Your task to perform on an android device: Show the shopping cart on ebay. Add "usb-b" to the cart on ebay, then select checkout. Image 0: 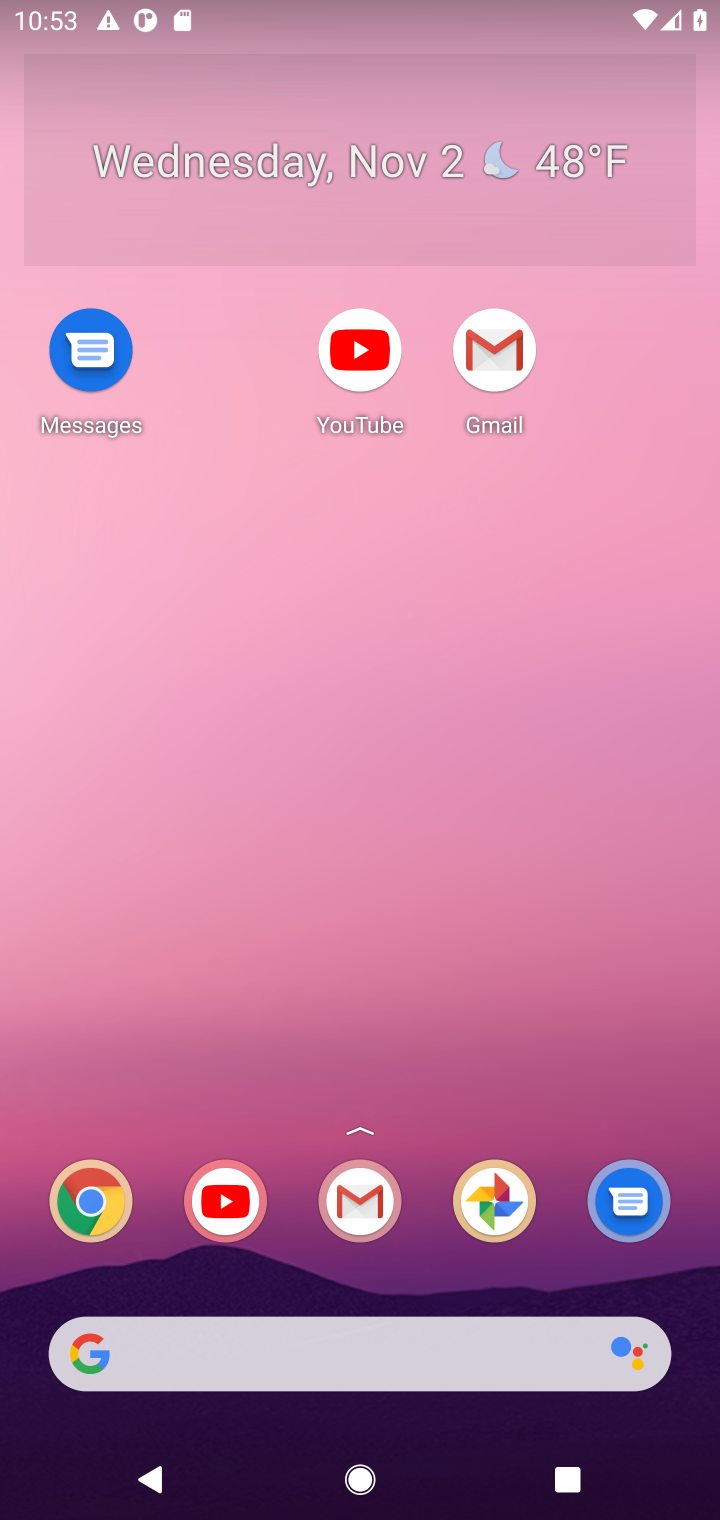
Step 0: drag from (429, 1294) to (414, 475)
Your task to perform on an android device: Show the shopping cart on ebay. Add "usb-b" to the cart on ebay, then select checkout. Image 1: 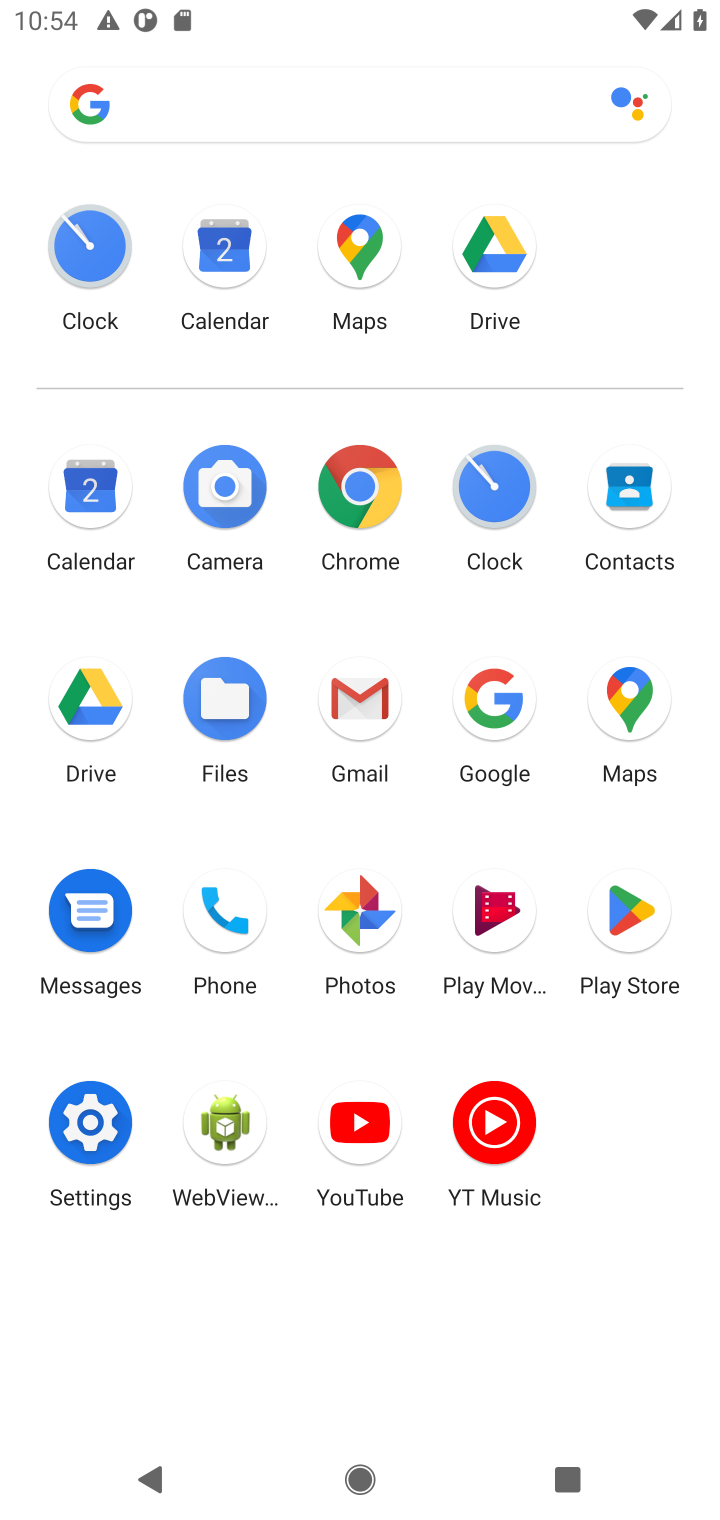
Step 1: click (361, 477)
Your task to perform on an android device: Show the shopping cart on ebay. Add "usb-b" to the cart on ebay, then select checkout. Image 2: 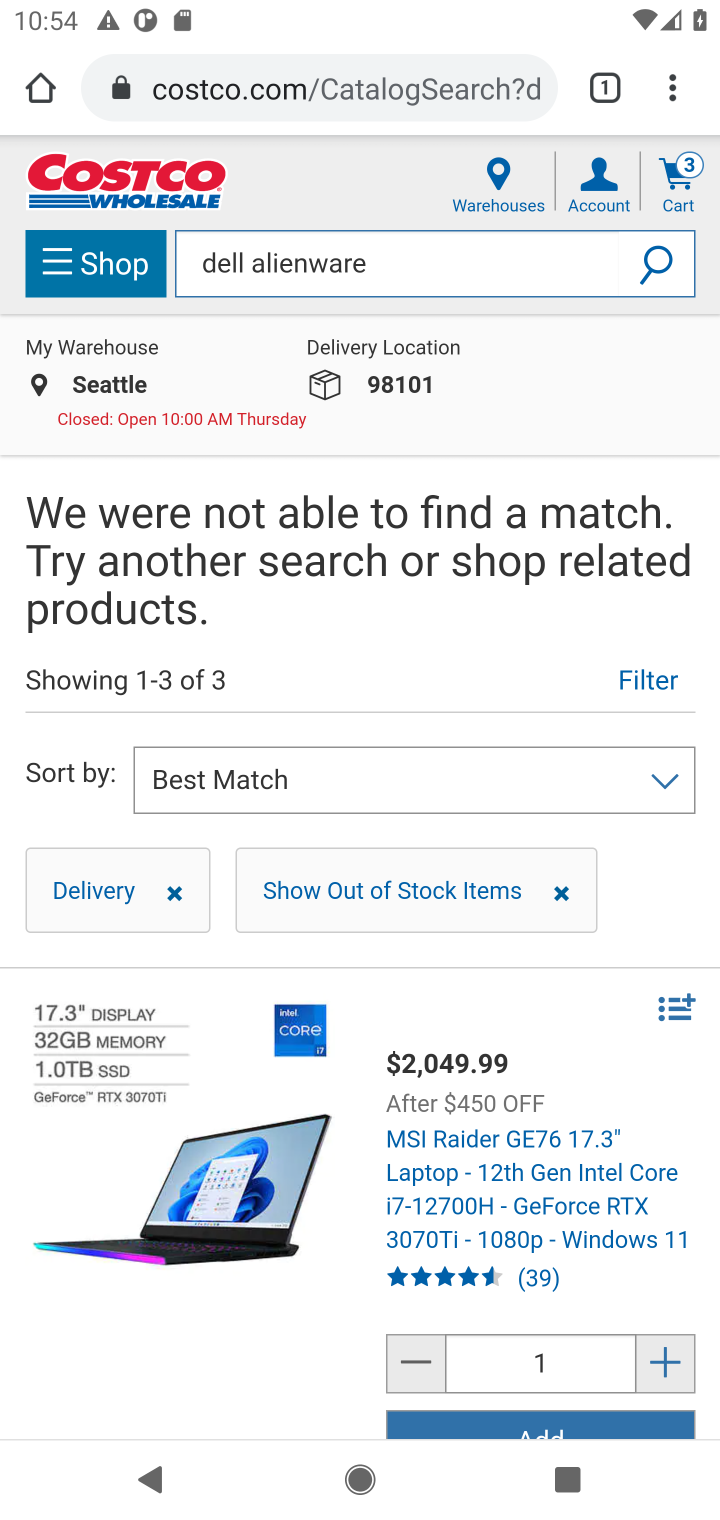
Step 2: click (262, 102)
Your task to perform on an android device: Show the shopping cart on ebay. Add "usb-b" to the cart on ebay, then select checkout. Image 3: 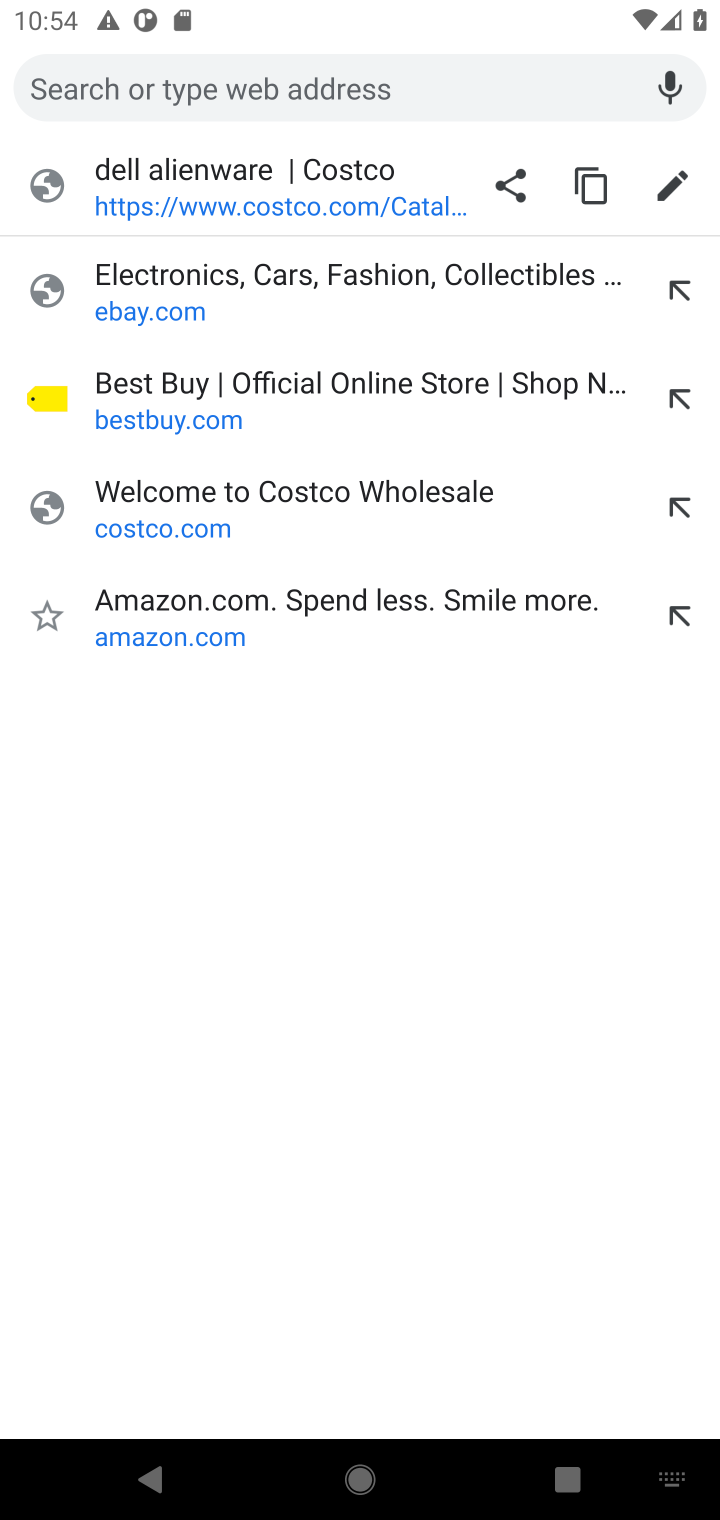
Step 3: type "ebay.com"
Your task to perform on an android device: Show the shopping cart on ebay. Add "usb-b" to the cart on ebay, then select checkout. Image 4: 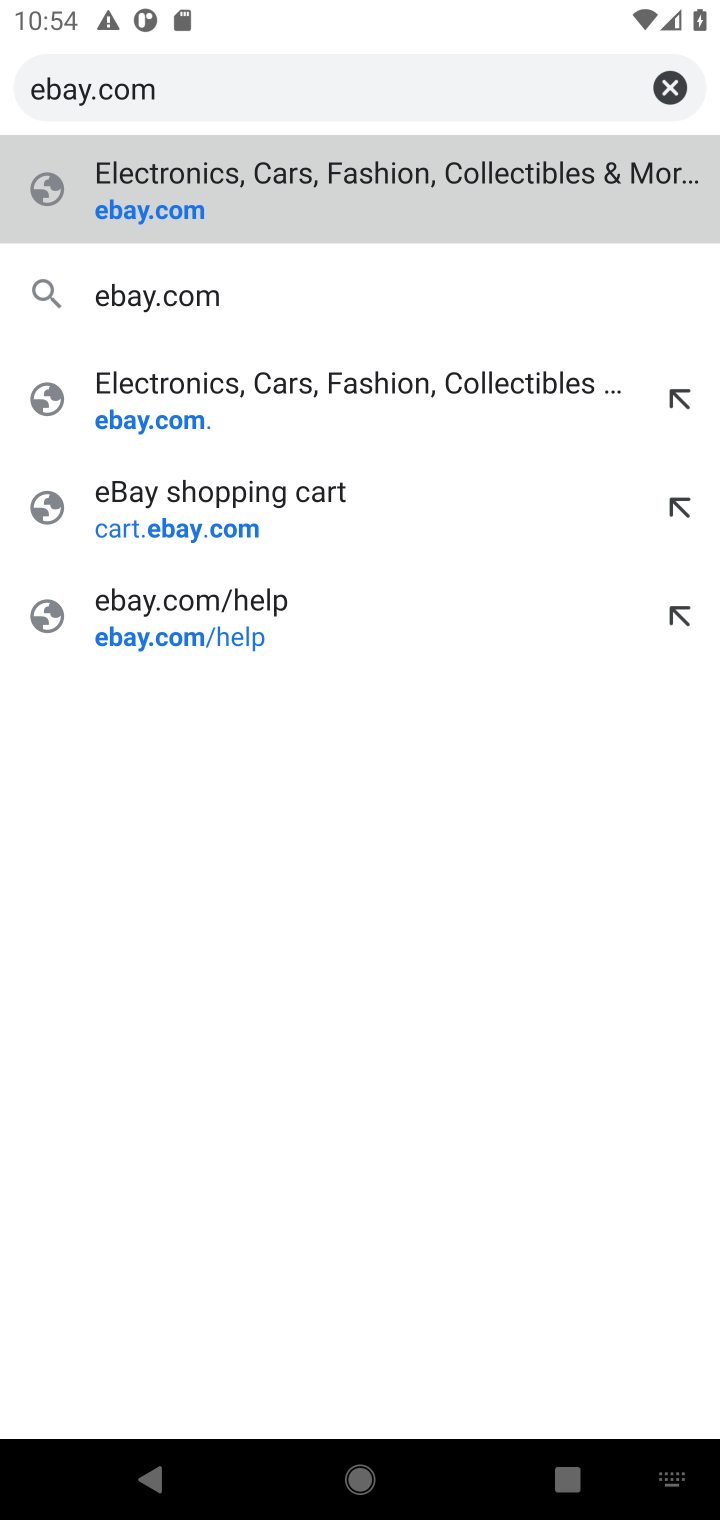
Step 4: press enter
Your task to perform on an android device: Show the shopping cart on ebay. Add "usb-b" to the cart on ebay, then select checkout. Image 5: 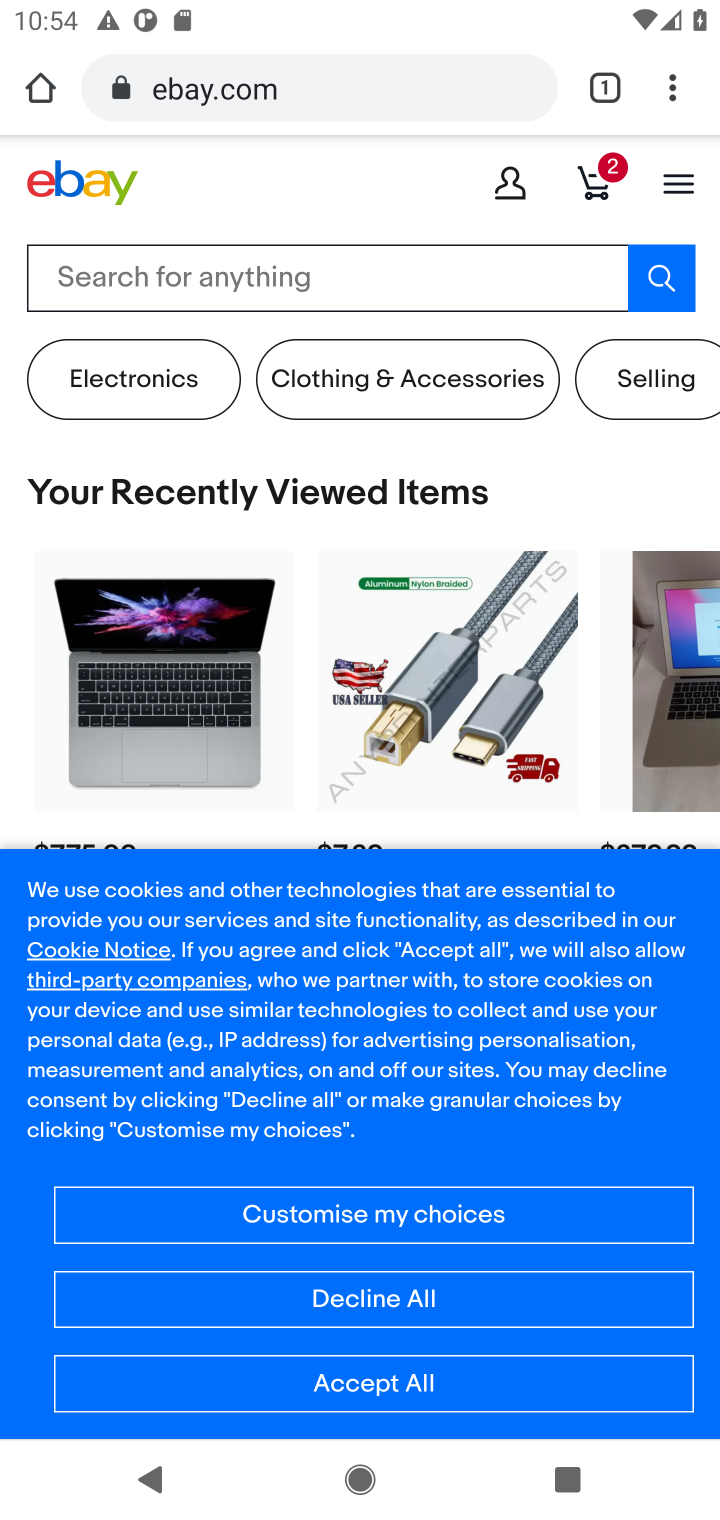
Step 5: click (601, 187)
Your task to perform on an android device: Show the shopping cart on ebay. Add "usb-b" to the cart on ebay, then select checkout. Image 6: 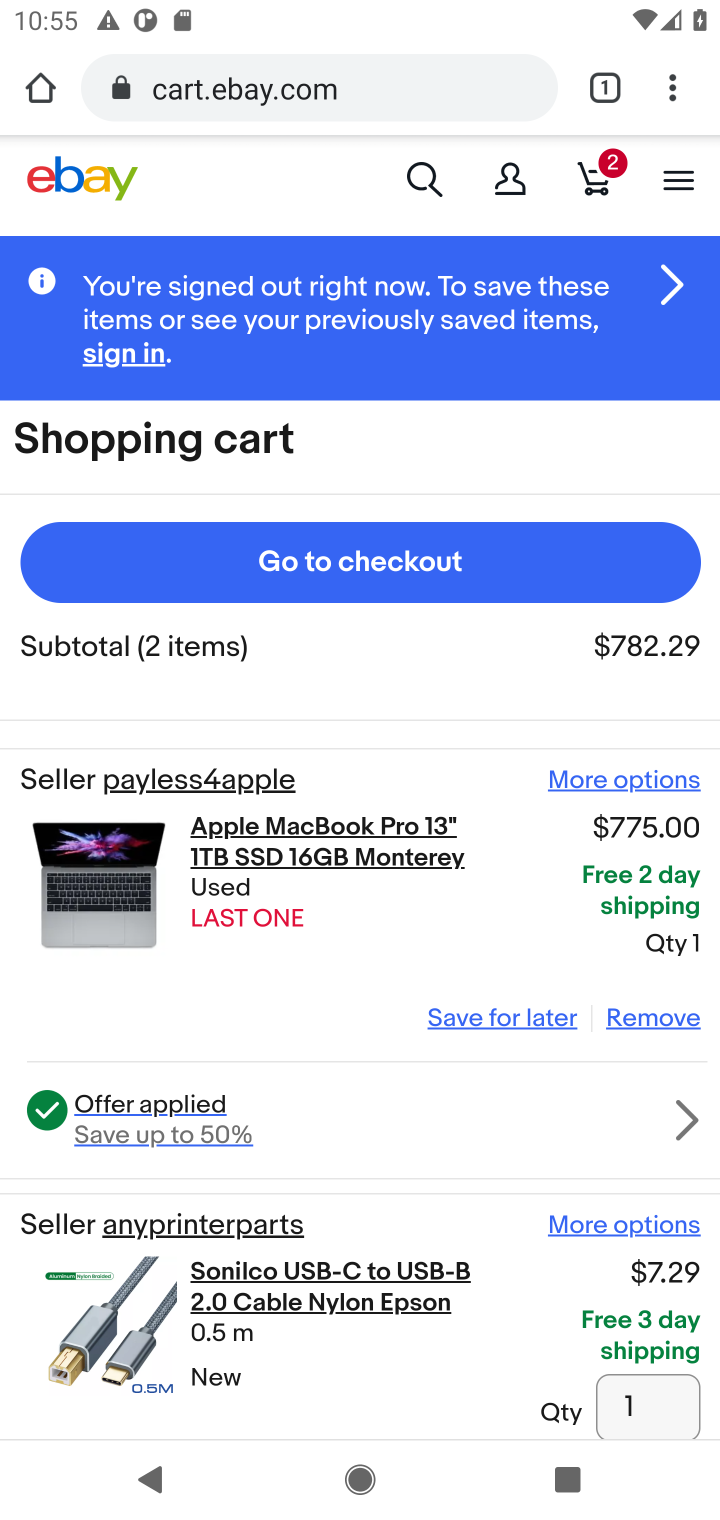
Step 6: click (416, 181)
Your task to perform on an android device: Show the shopping cart on ebay. Add "usb-b" to the cart on ebay, then select checkout. Image 7: 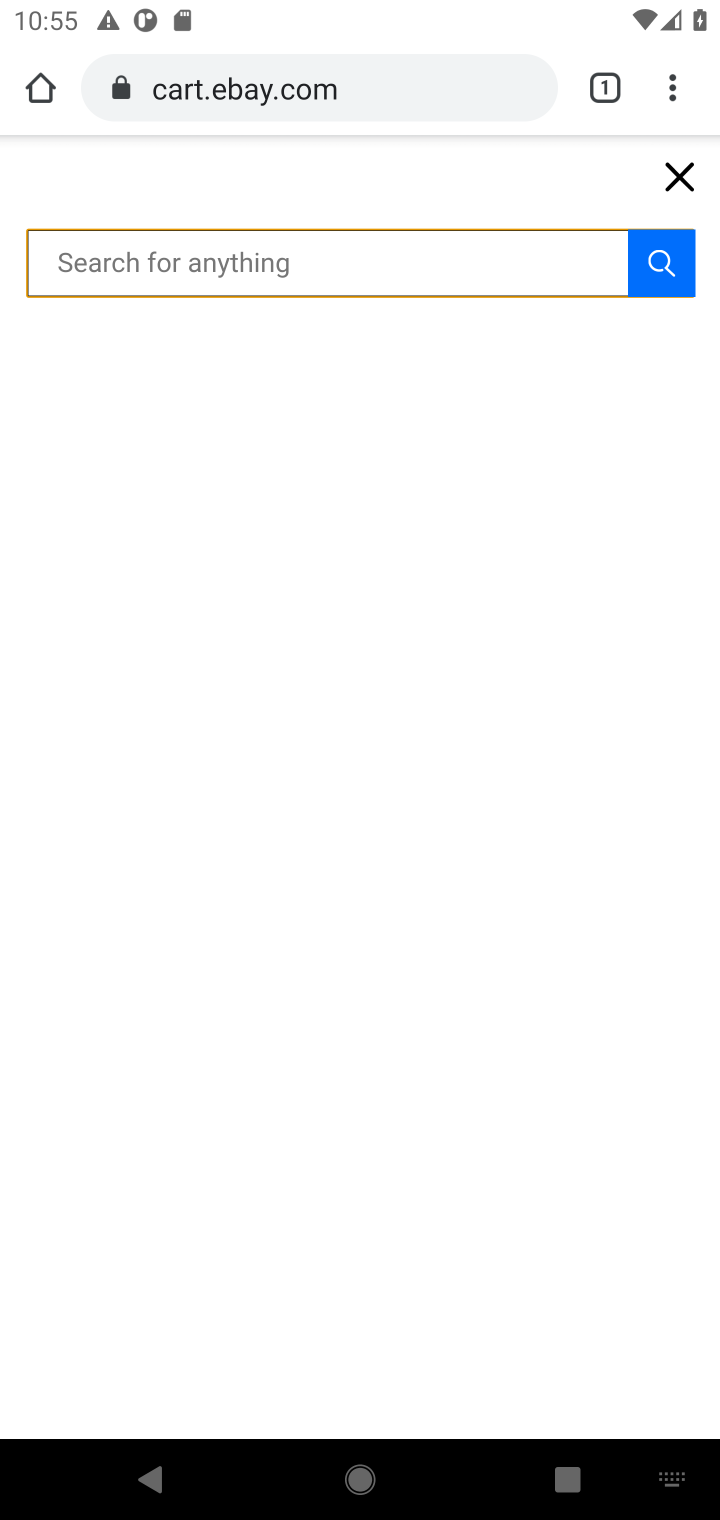
Step 7: type "usb-b"
Your task to perform on an android device: Show the shopping cart on ebay. Add "usb-b" to the cart on ebay, then select checkout. Image 8: 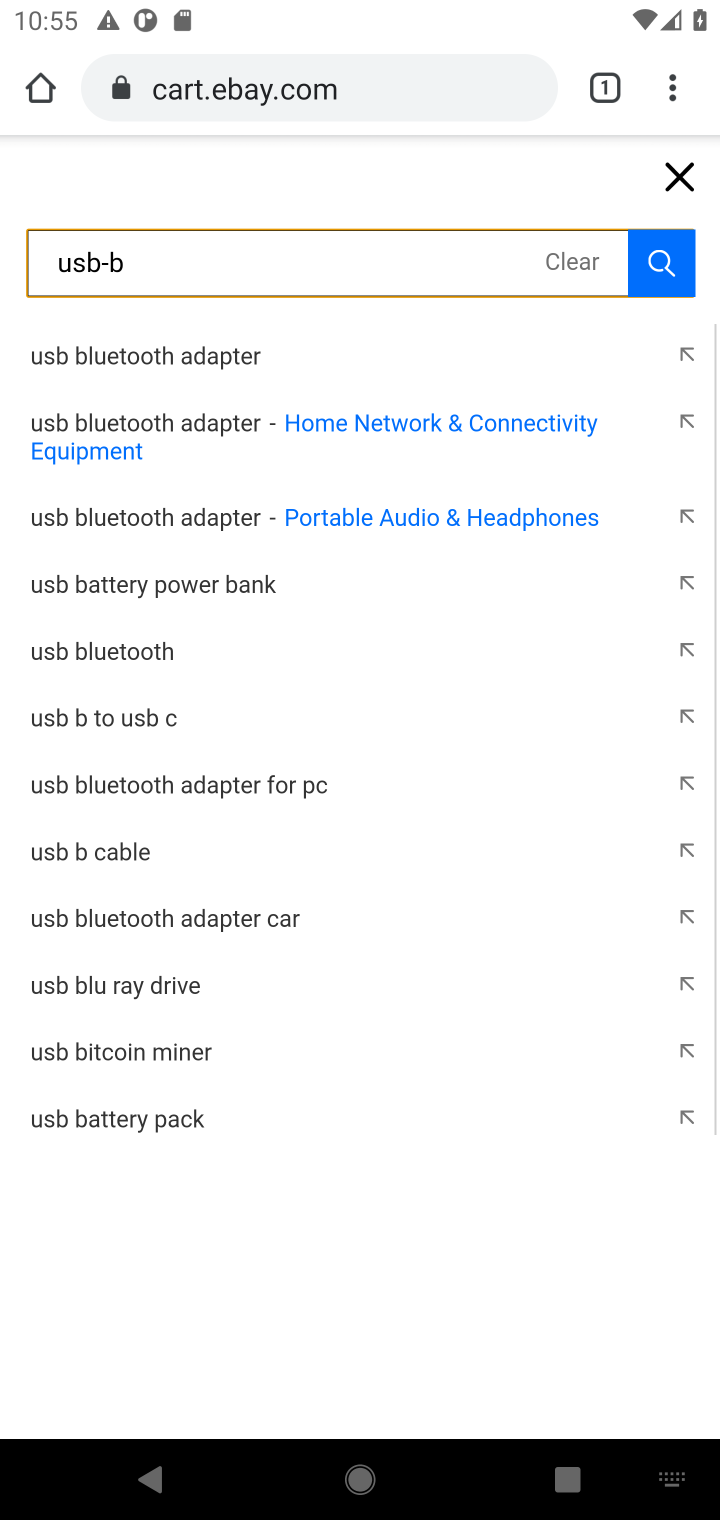
Step 8: press enter
Your task to perform on an android device: Show the shopping cart on ebay. Add "usb-b" to the cart on ebay, then select checkout. Image 9: 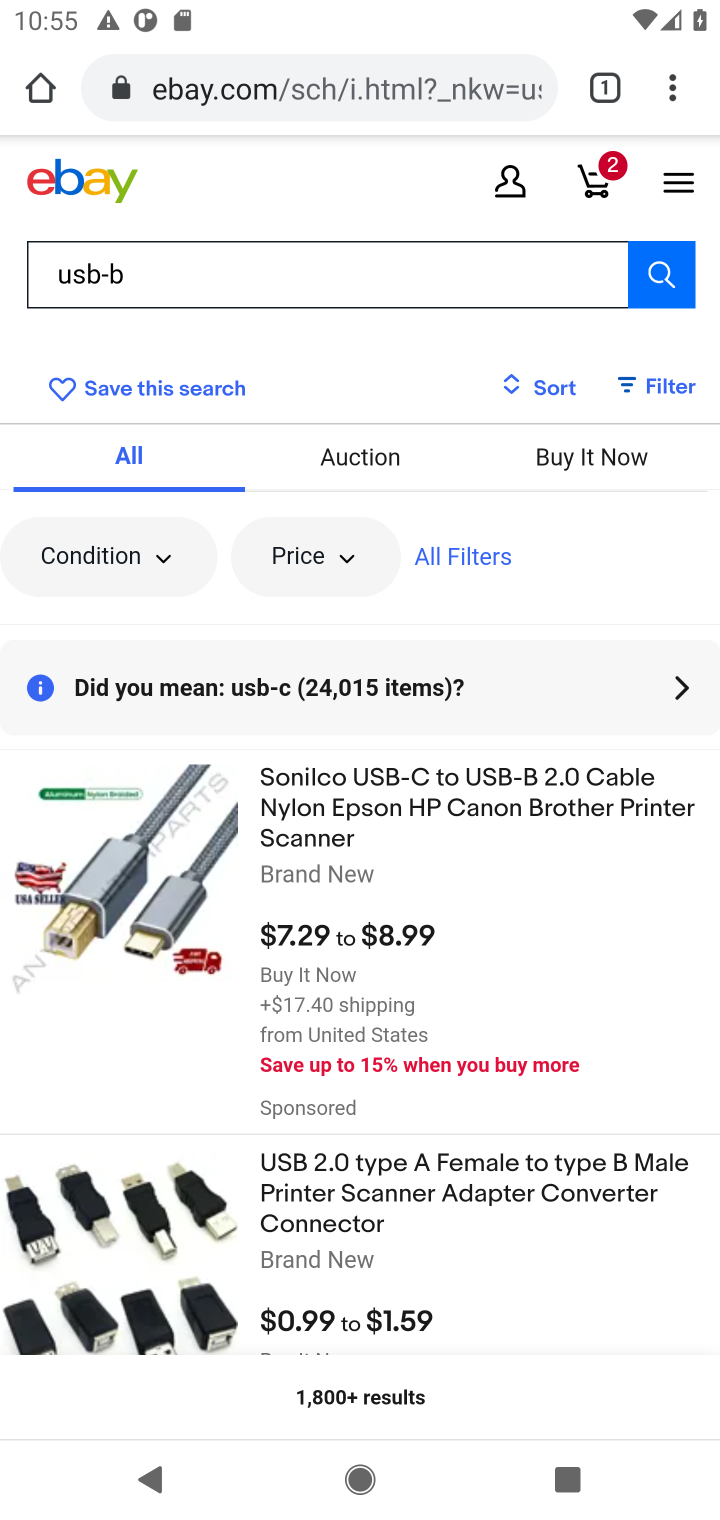
Step 9: drag from (543, 1040) to (508, 563)
Your task to perform on an android device: Show the shopping cart on ebay. Add "usb-b" to the cart on ebay, then select checkout. Image 10: 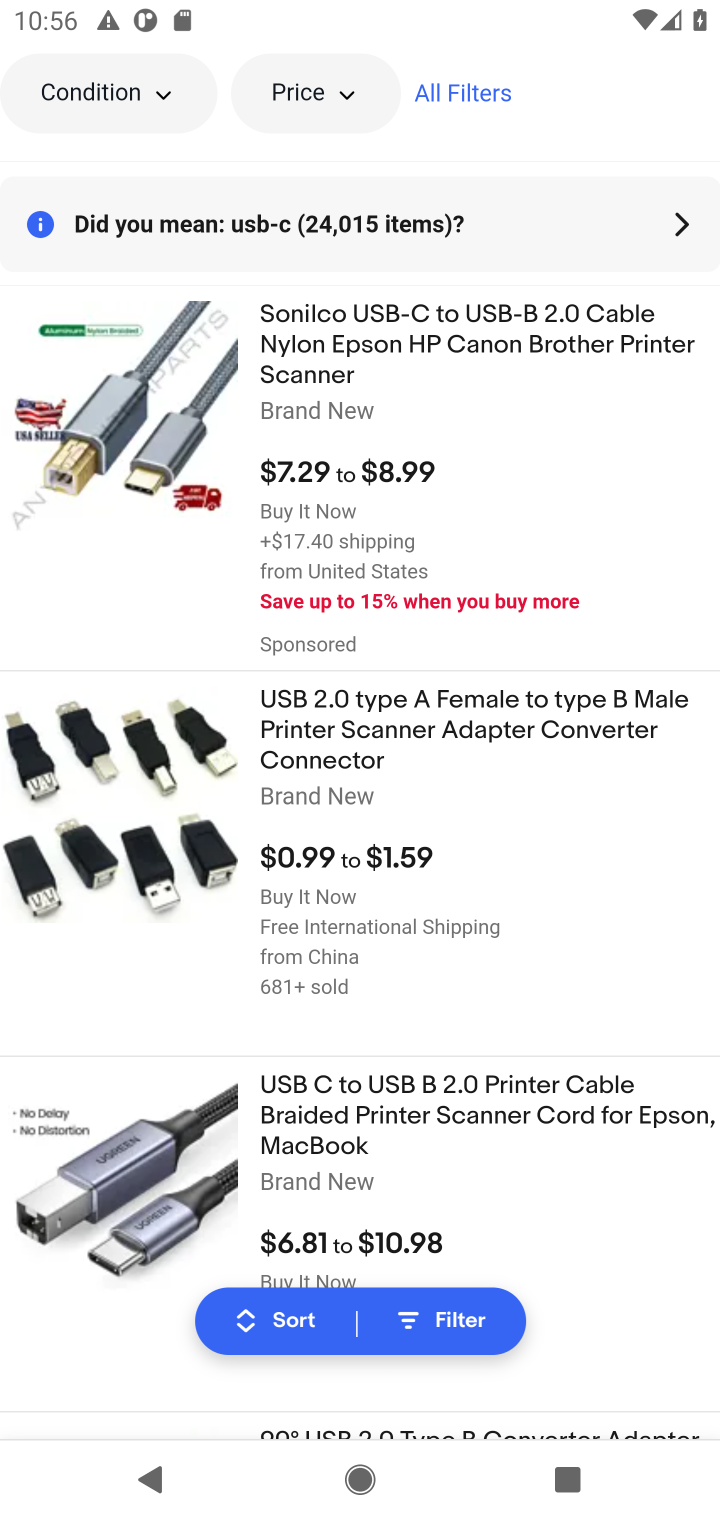
Step 10: drag from (295, 446) to (266, 904)
Your task to perform on an android device: Show the shopping cart on ebay. Add "usb-b" to the cart on ebay, then select checkout. Image 11: 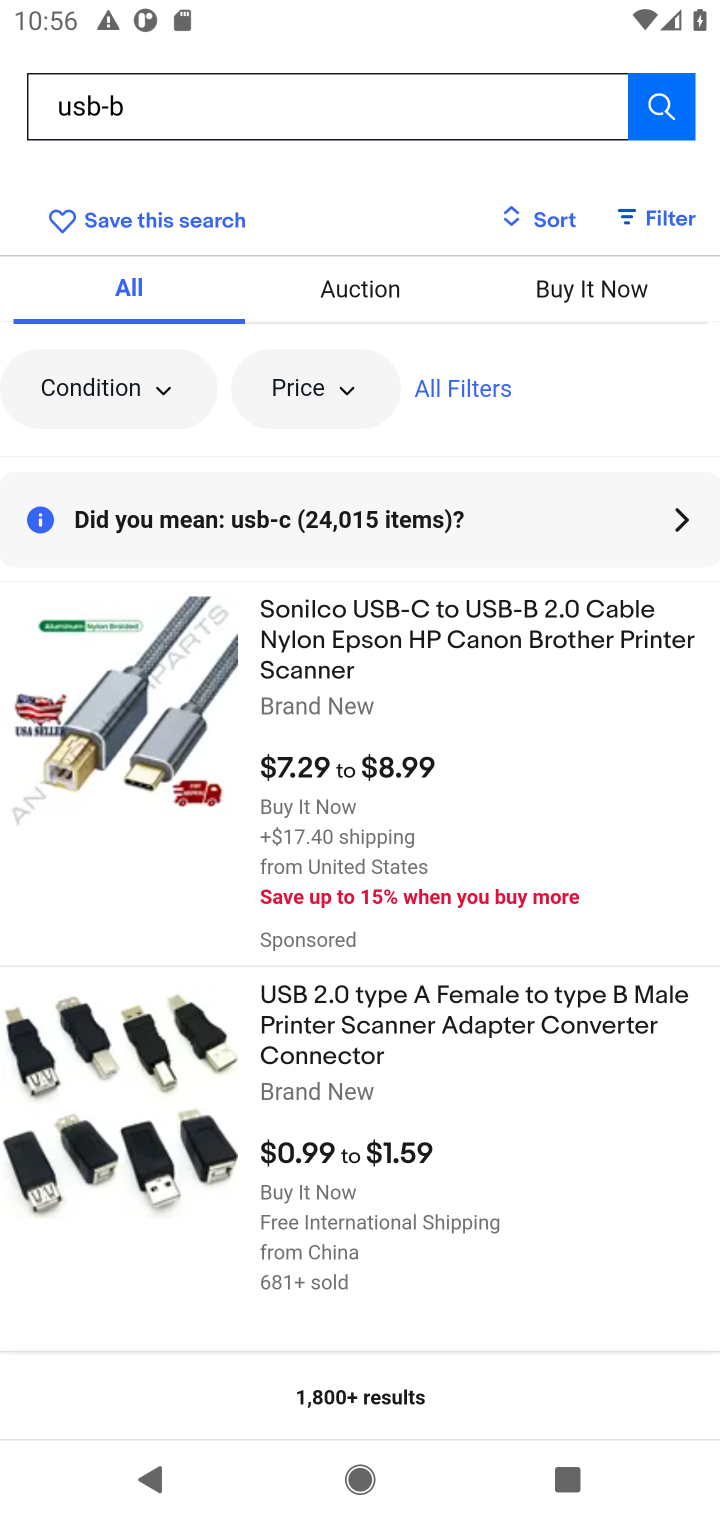
Step 11: click (142, 687)
Your task to perform on an android device: Show the shopping cart on ebay. Add "usb-b" to the cart on ebay, then select checkout. Image 12: 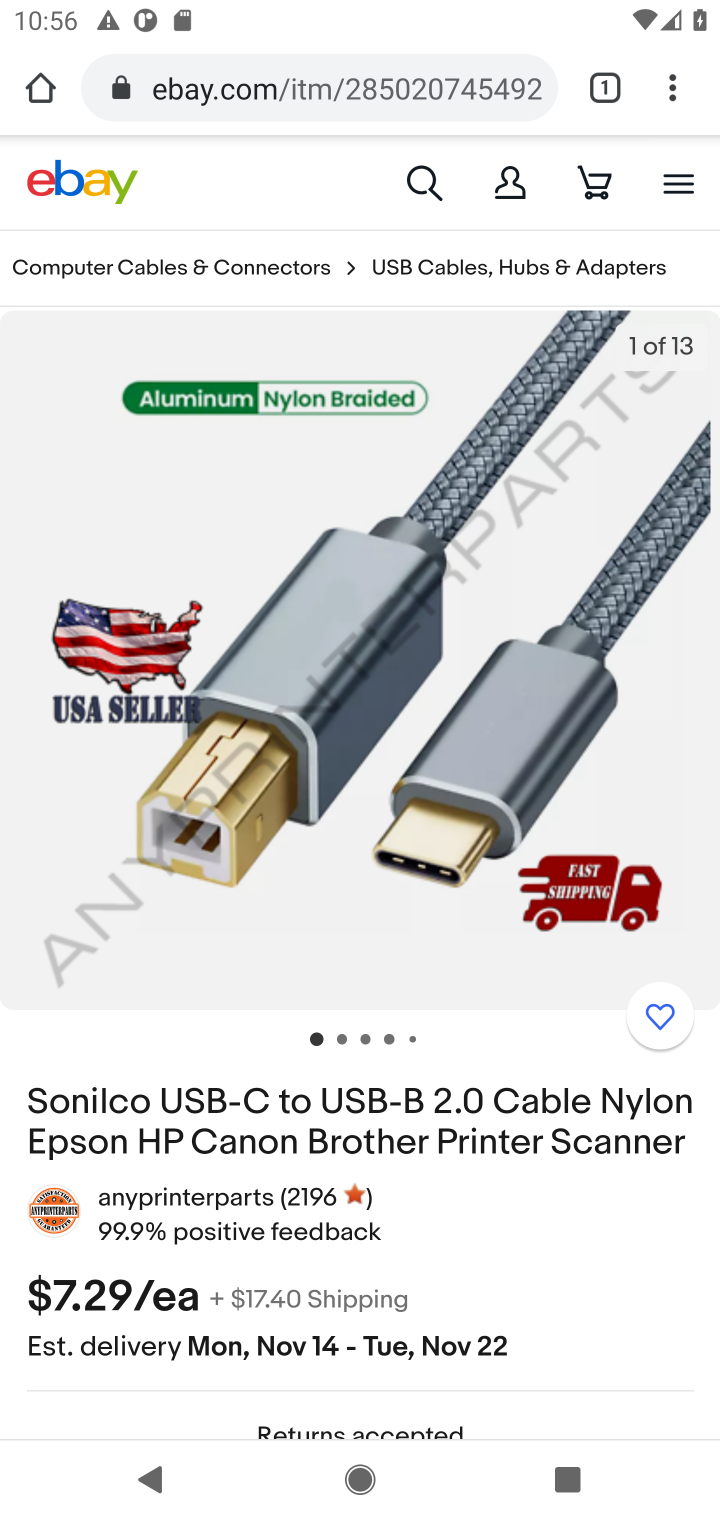
Step 12: drag from (310, 1019) to (346, 509)
Your task to perform on an android device: Show the shopping cart on ebay. Add "usb-b" to the cart on ebay, then select checkout. Image 13: 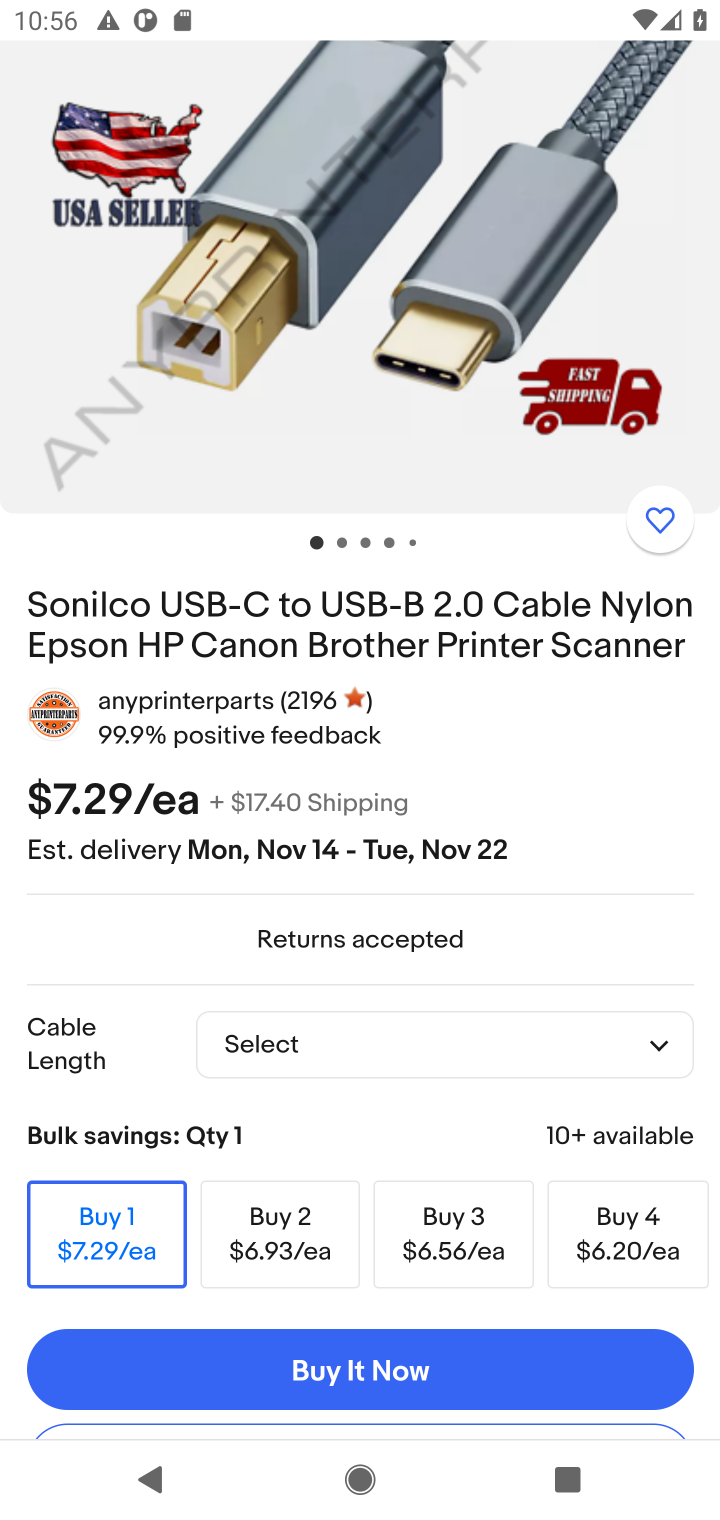
Step 13: drag from (388, 1182) to (393, 707)
Your task to perform on an android device: Show the shopping cart on ebay. Add "usb-b" to the cart on ebay, then select checkout. Image 14: 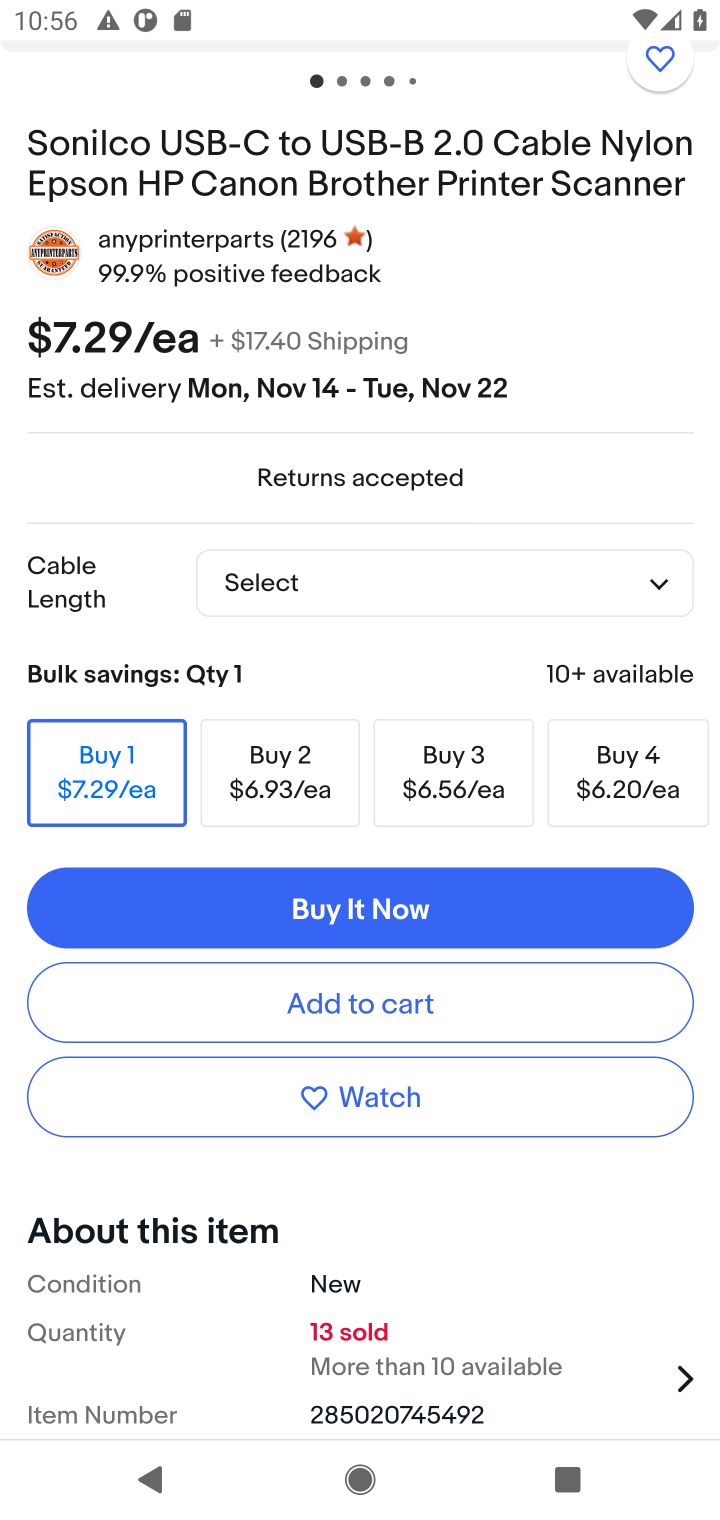
Step 14: click (434, 1009)
Your task to perform on an android device: Show the shopping cart on ebay. Add "usb-b" to the cart on ebay, then select checkout. Image 15: 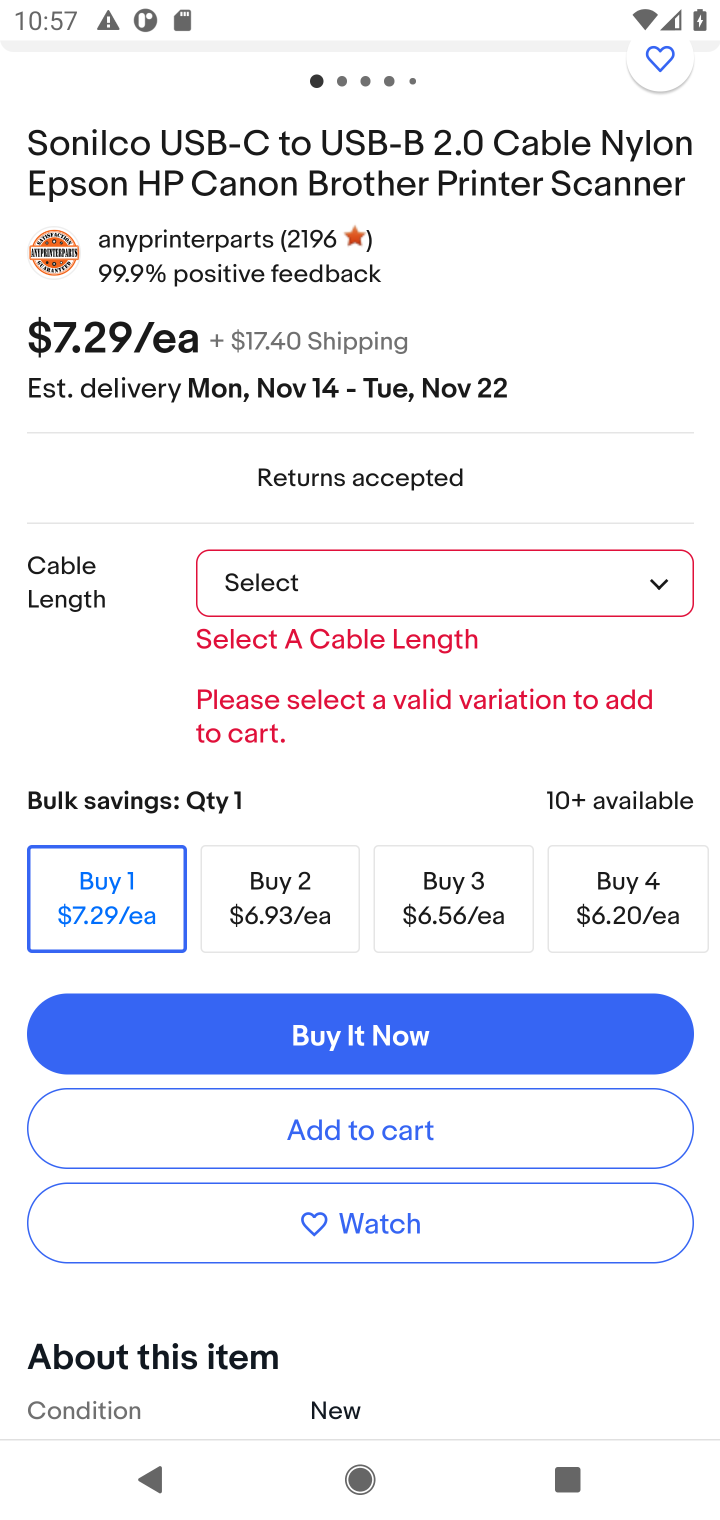
Step 15: click (511, 595)
Your task to perform on an android device: Show the shopping cart on ebay. Add "usb-b" to the cart on ebay, then select checkout. Image 16: 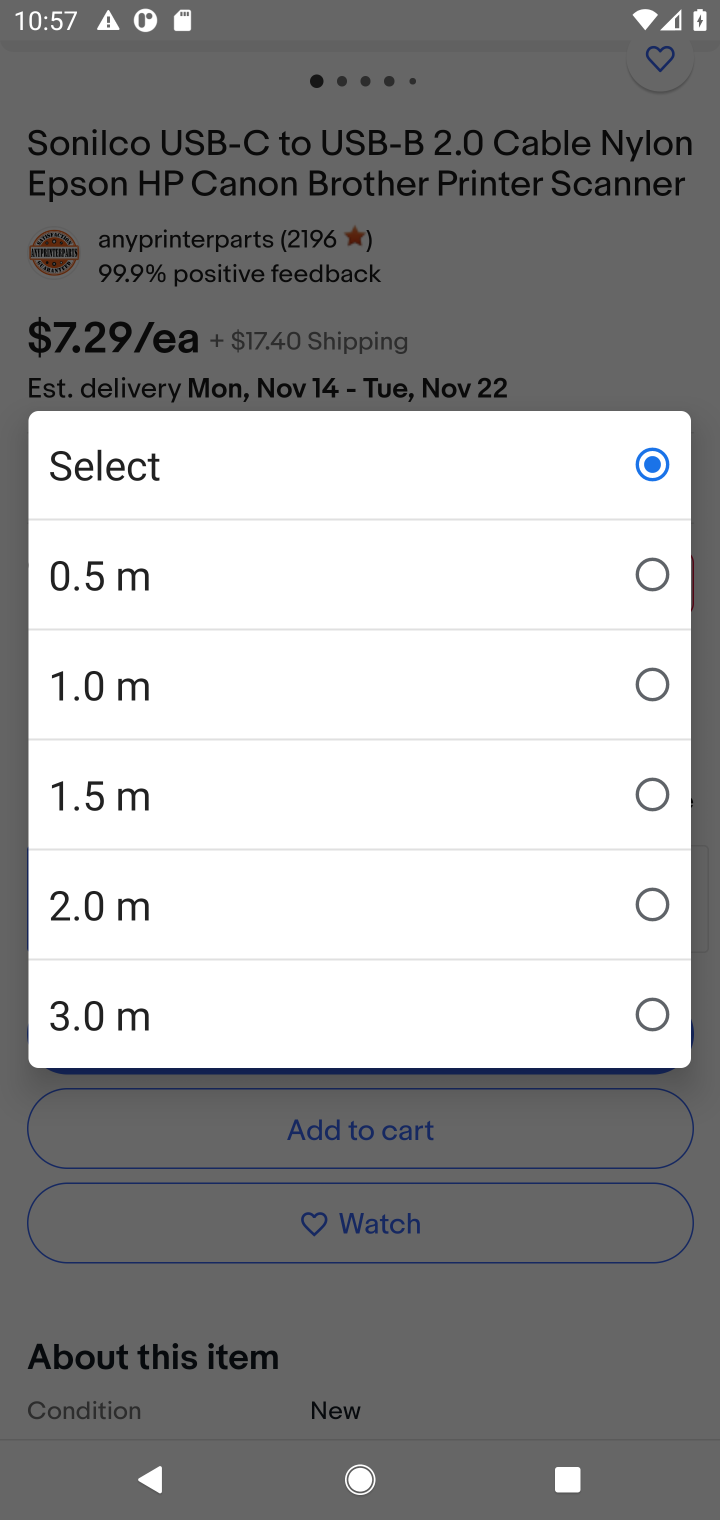
Step 16: click (371, 598)
Your task to perform on an android device: Show the shopping cart on ebay. Add "usb-b" to the cart on ebay, then select checkout. Image 17: 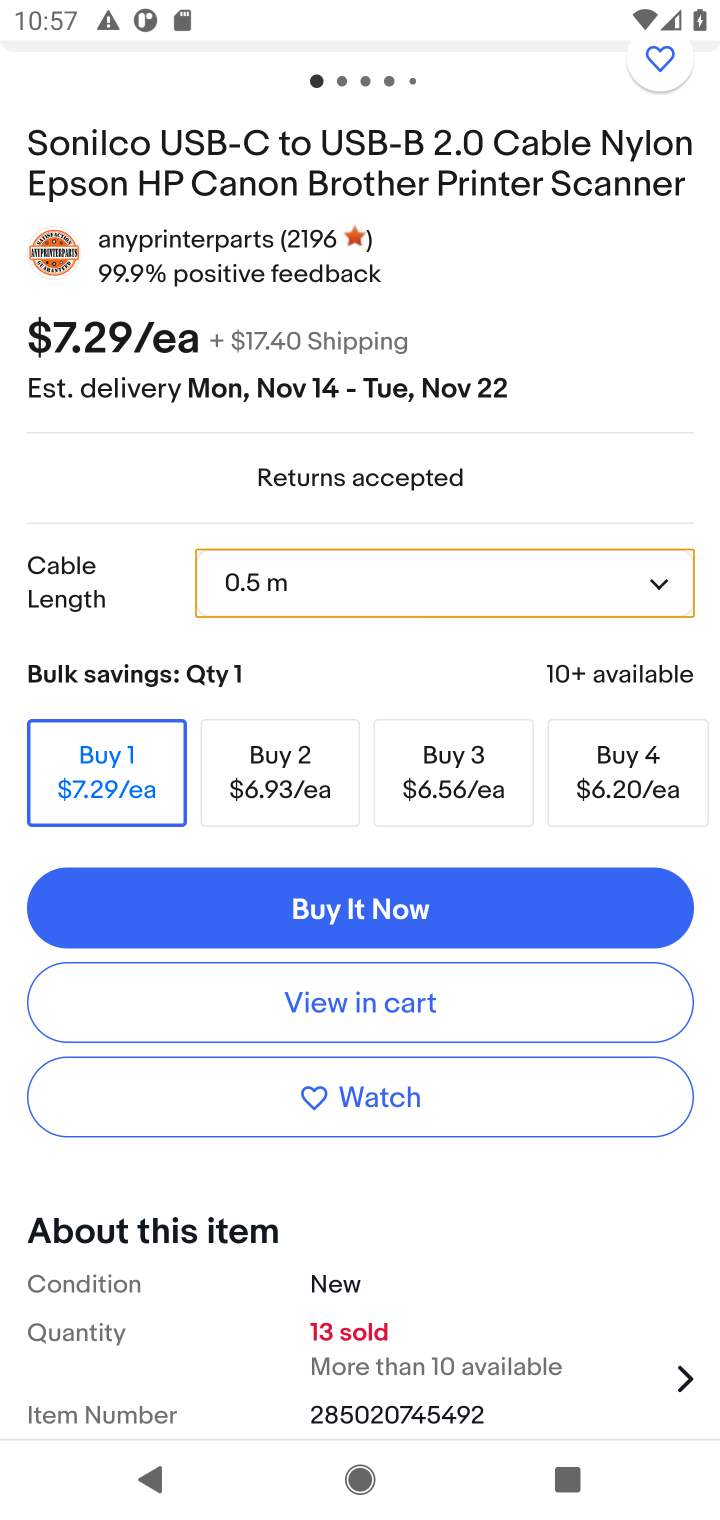
Step 17: click (411, 1007)
Your task to perform on an android device: Show the shopping cart on ebay. Add "usb-b" to the cart on ebay, then select checkout. Image 18: 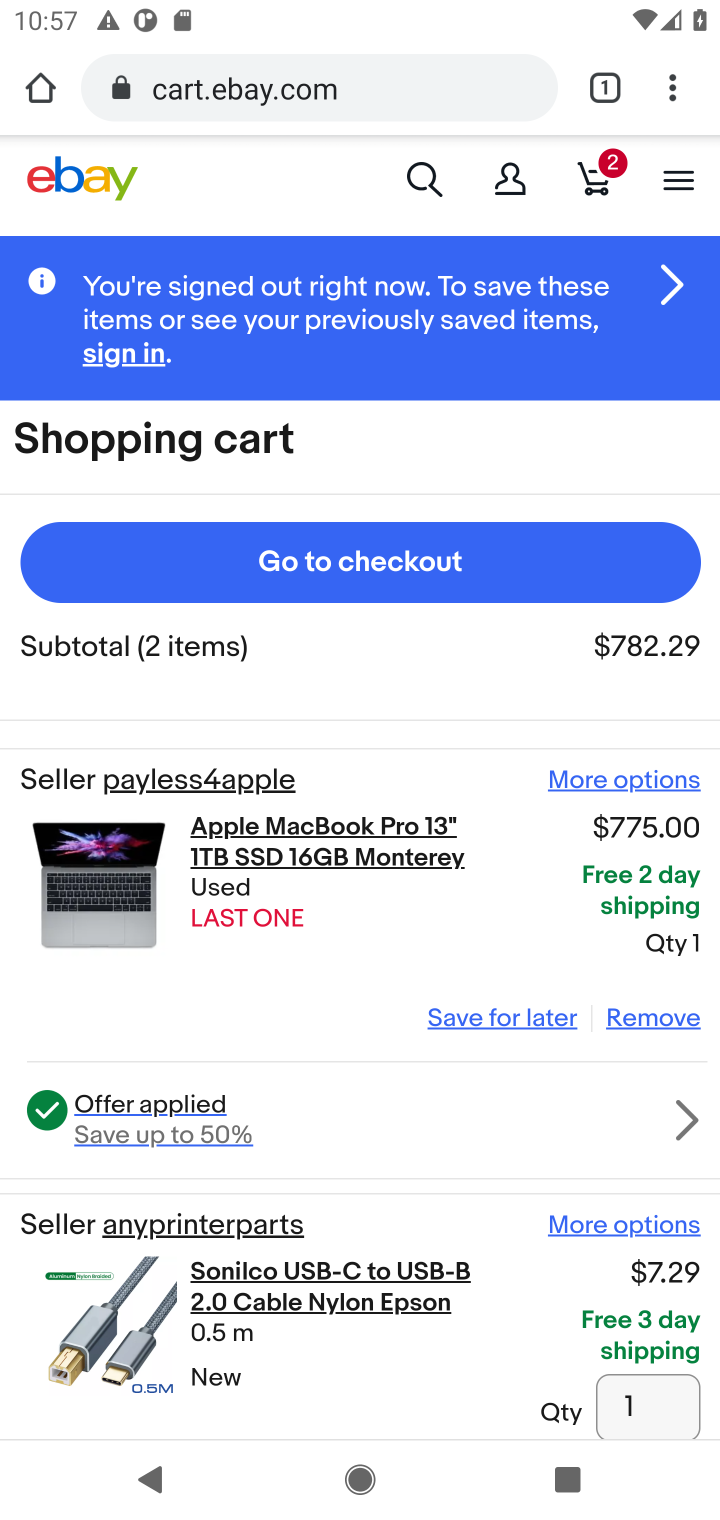
Step 18: click (453, 552)
Your task to perform on an android device: Show the shopping cart on ebay. Add "usb-b" to the cart on ebay, then select checkout. Image 19: 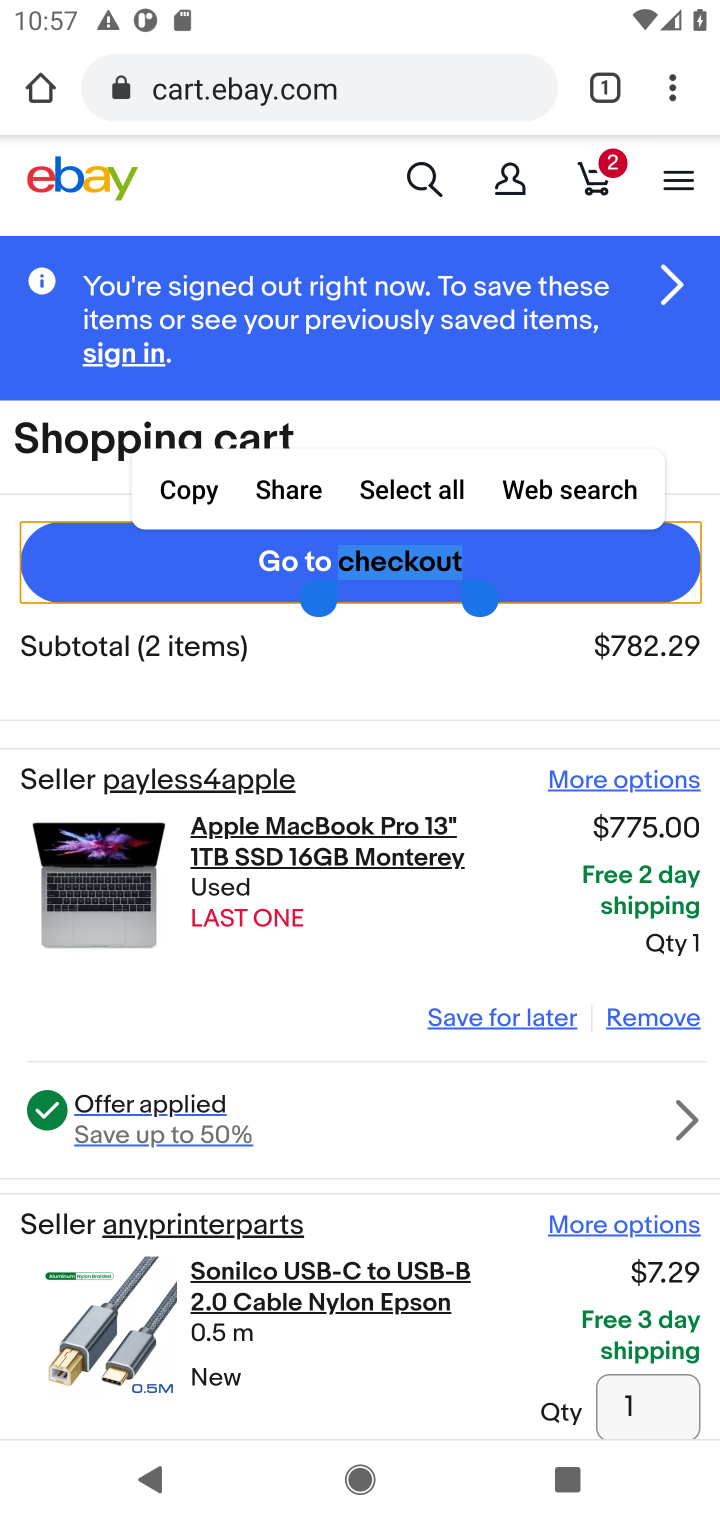
Step 19: click (471, 572)
Your task to perform on an android device: Show the shopping cart on ebay. Add "usb-b" to the cart on ebay, then select checkout. Image 20: 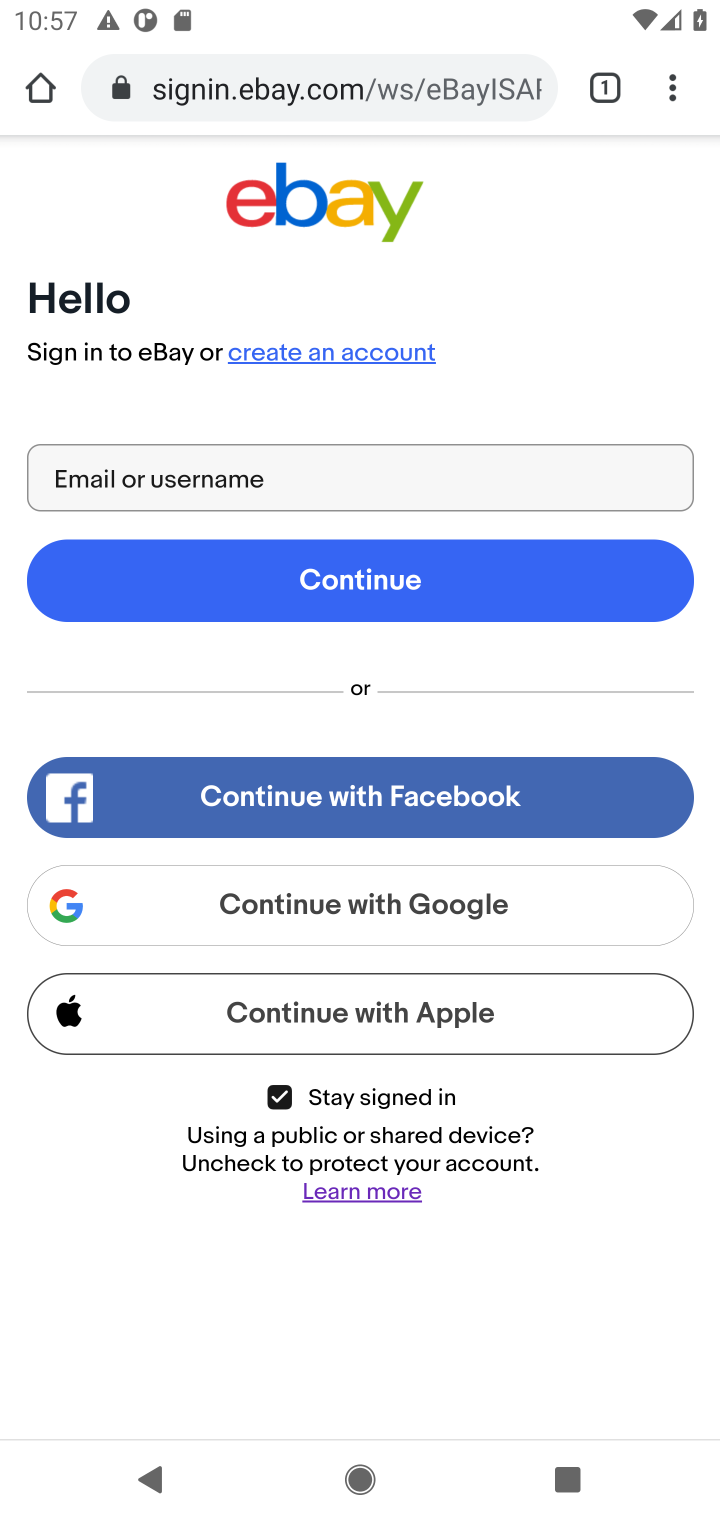
Step 20: task complete